Your task to perform on an android device: empty trash in the gmail app Image 0: 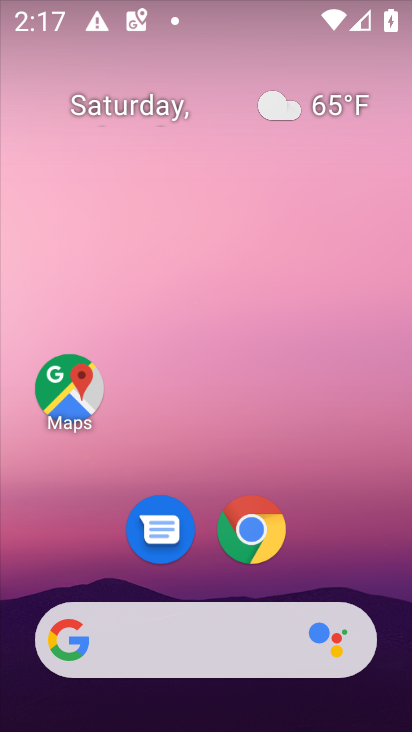
Step 0: drag from (378, 578) to (322, 68)
Your task to perform on an android device: empty trash in the gmail app Image 1: 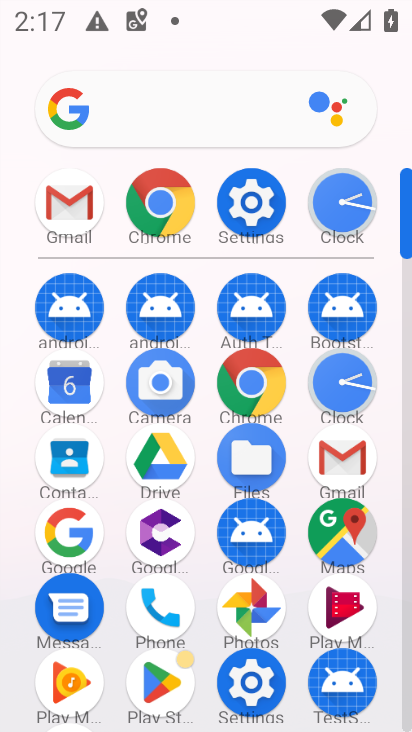
Step 1: click (77, 195)
Your task to perform on an android device: empty trash in the gmail app Image 2: 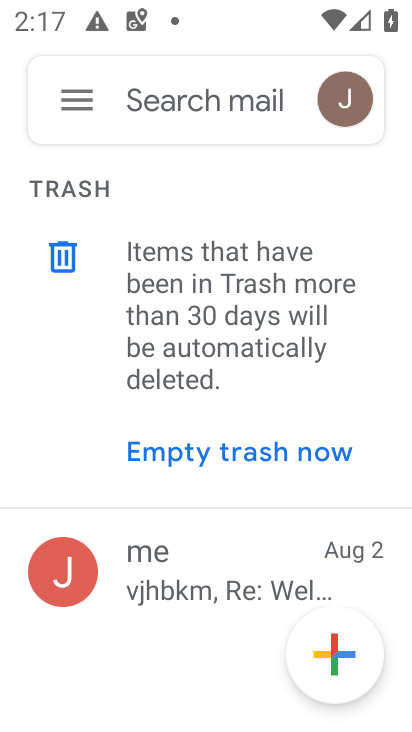
Step 2: click (249, 455)
Your task to perform on an android device: empty trash in the gmail app Image 3: 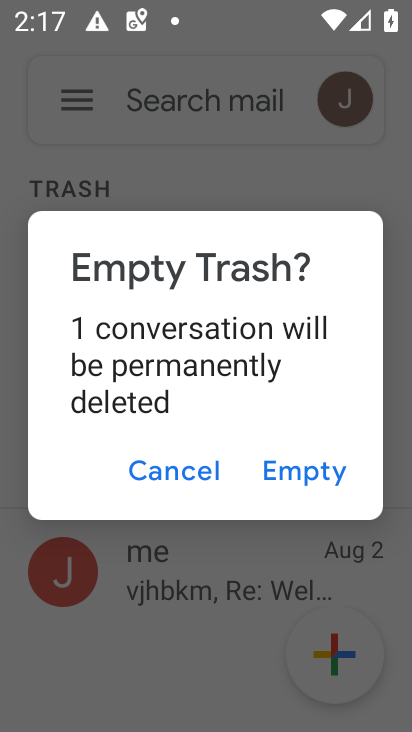
Step 3: click (282, 469)
Your task to perform on an android device: empty trash in the gmail app Image 4: 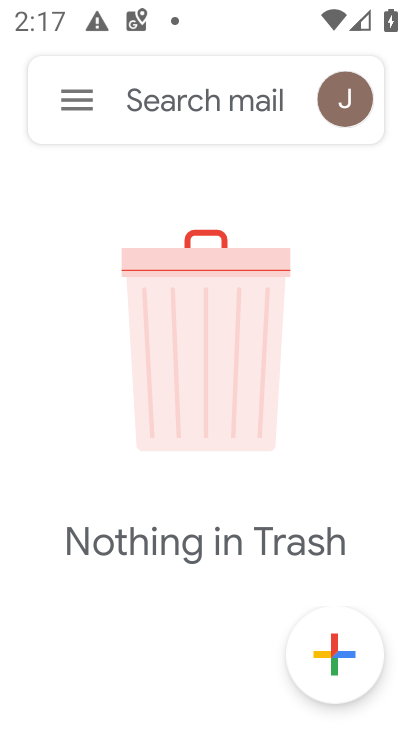
Step 4: task complete